Your task to perform on an android device: open a bookmark in the chrome app Image 0: 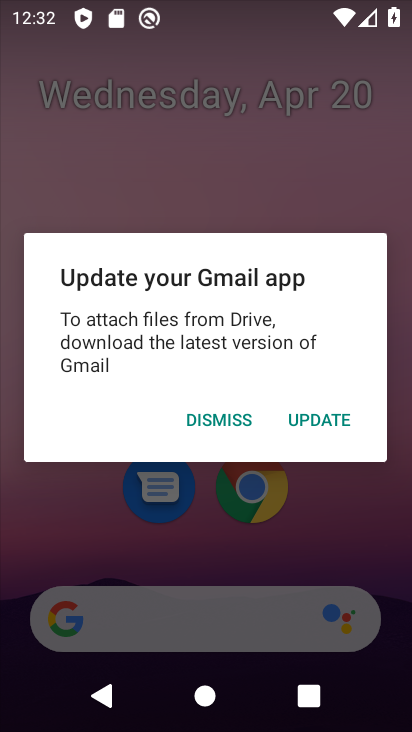
Step 0: press home button
Your task to perform on an android device: open a bookmark in the chrome app Image 1: 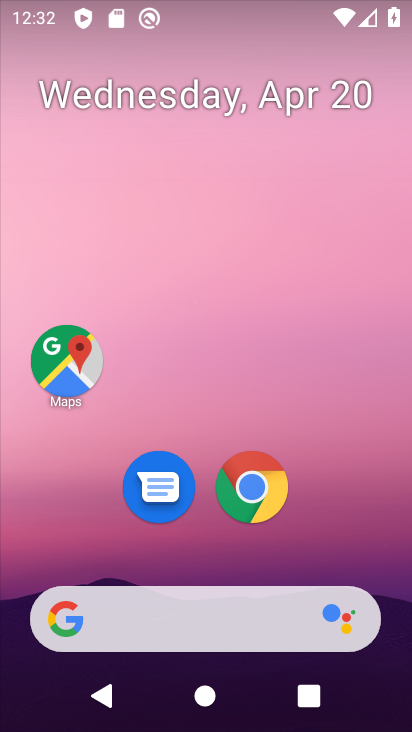
Step 1: drag from (394, 608) to (274, 65)
Your task to perform on an android device: open a bookmark in the chrome app Image 2: 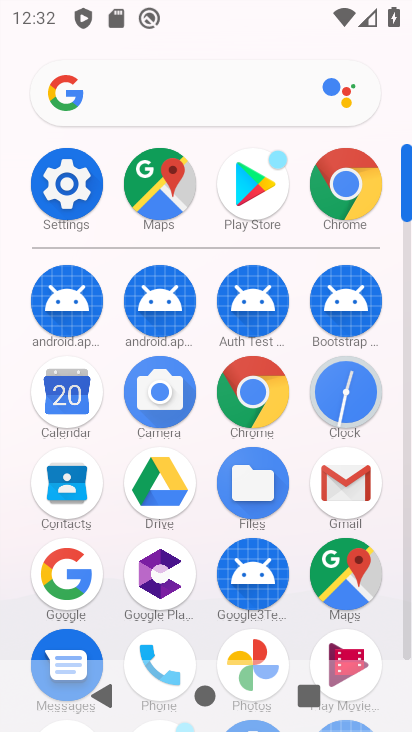
Step 2: click (345, 190)
Your task to perform on an android device: open a bookmark in the chrome app Image 3: 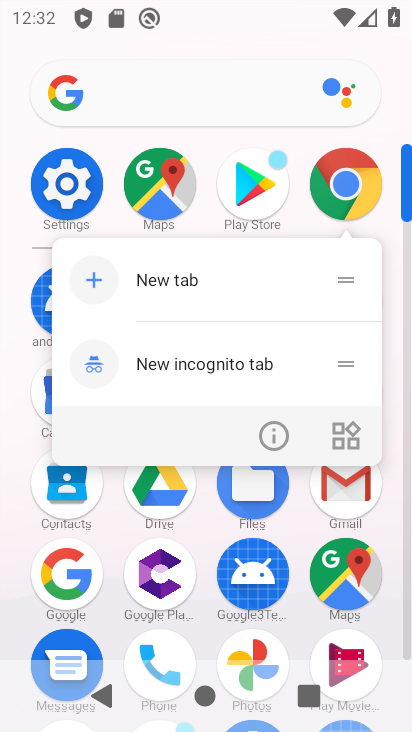
Step 3: click (345, 189)
Your task to perform on an android device: open a bookmark in the chrome app Image 4: 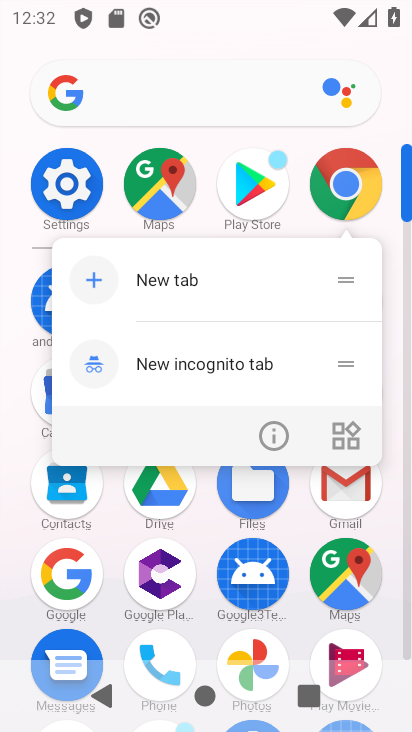
Step 4: click (348, 183)
Your task to perform on an android device: open a bookmark in the chrome app Image 5: 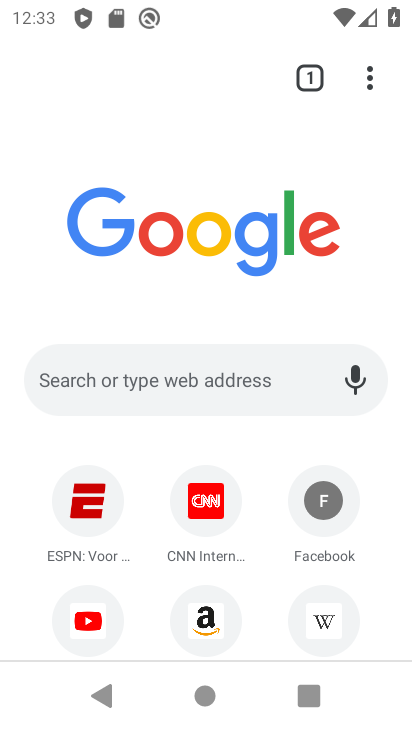
Step 5: click (368, 71)
Your task to perform on an android device: open a bookmark in the chrome app Image 6: 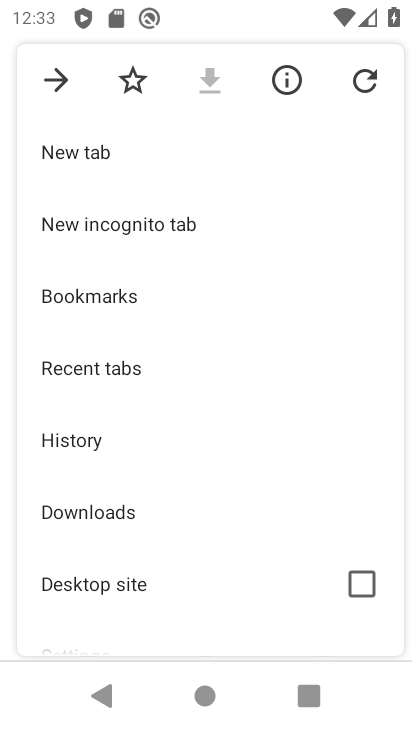
Step 6: click (246, 304)
Your task to perform on an android device: open a bookmark in the chrome app Image 7: 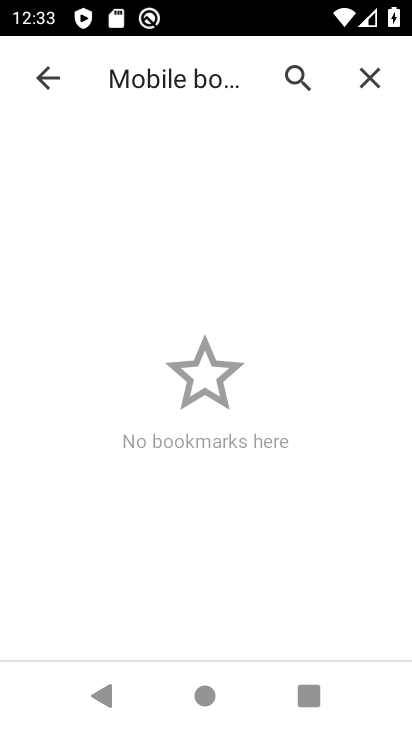
Step 7: task complete